Your task to perform on an android device: Open calendar and show me the second week of next month Image 0: 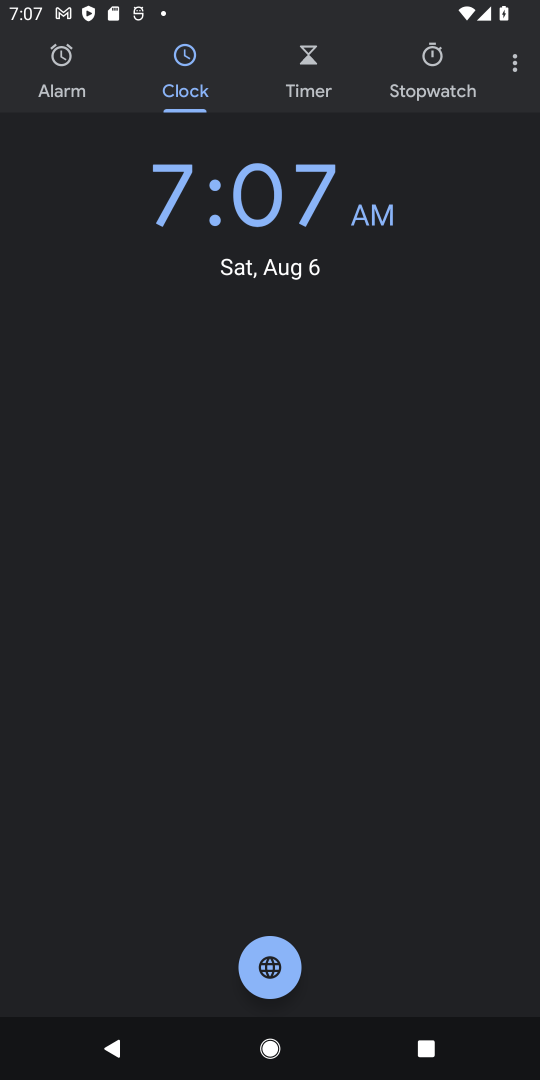
Step 0: press home button
Your task to perform on an android device: Open calendar and show me the second week of next month Image 1: 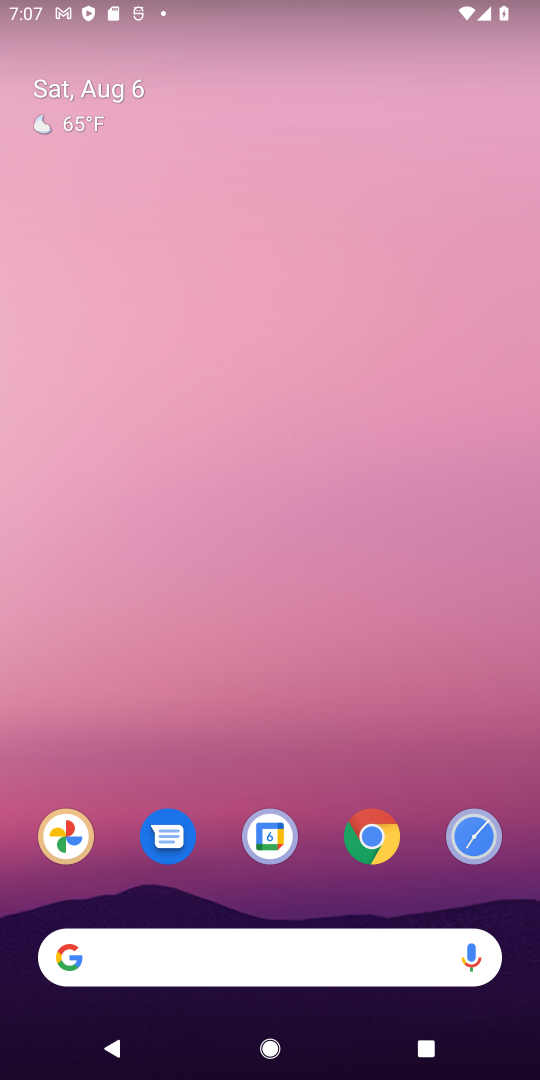
Step 1: drag from (475, 912) to (114, 139)
Your task to perform on an android device: Open calendar and show me the second week of next month Image 2: 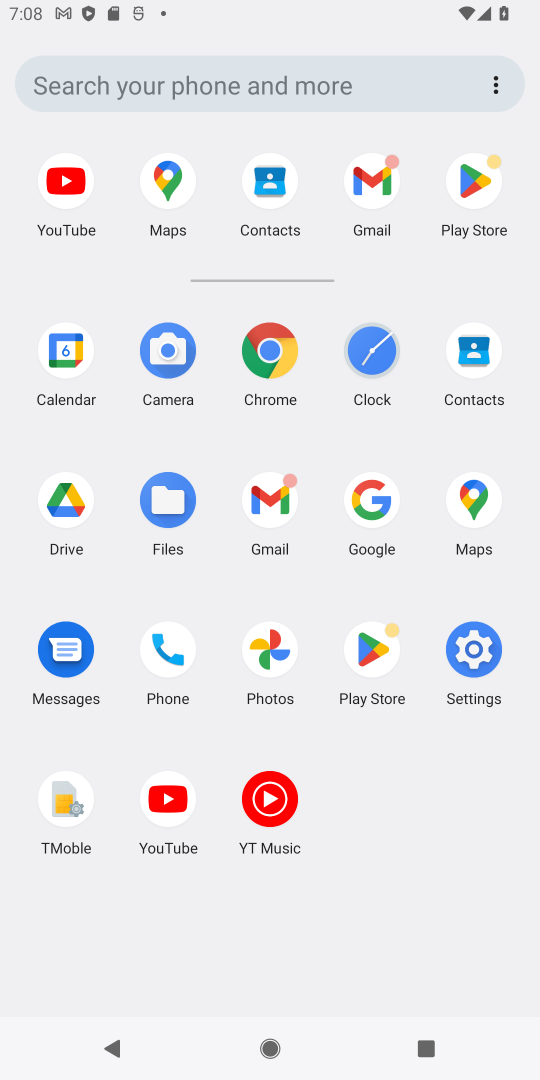
Step 2: click (77, 364)
Your task to perform on an android device: Open calendar and show me the second week of next month Image 3: 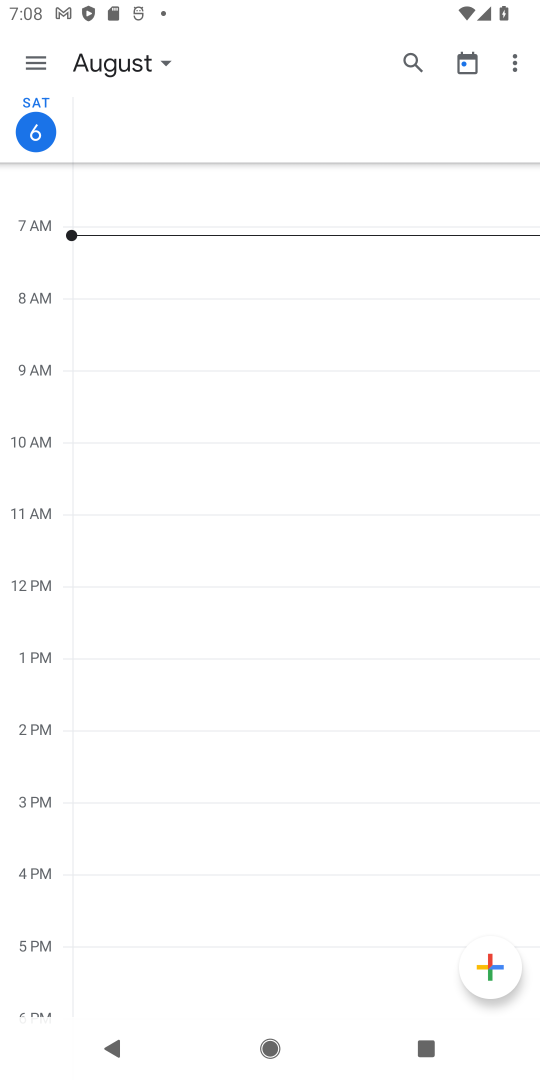
Step 3: click (123, 74)
Your task to perform on an android device: Open calendar and show me the second week of next month Image 4: 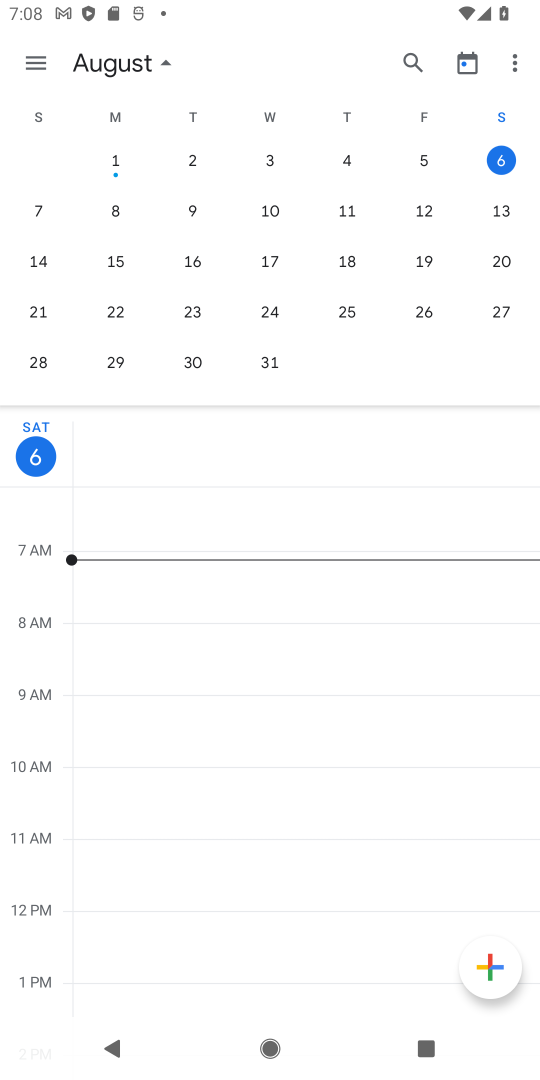
Step 4: drag from (531, 213) to (11, 194)
Your task to perform on an android device: Open calendar and show me the second week of next month Image 5: 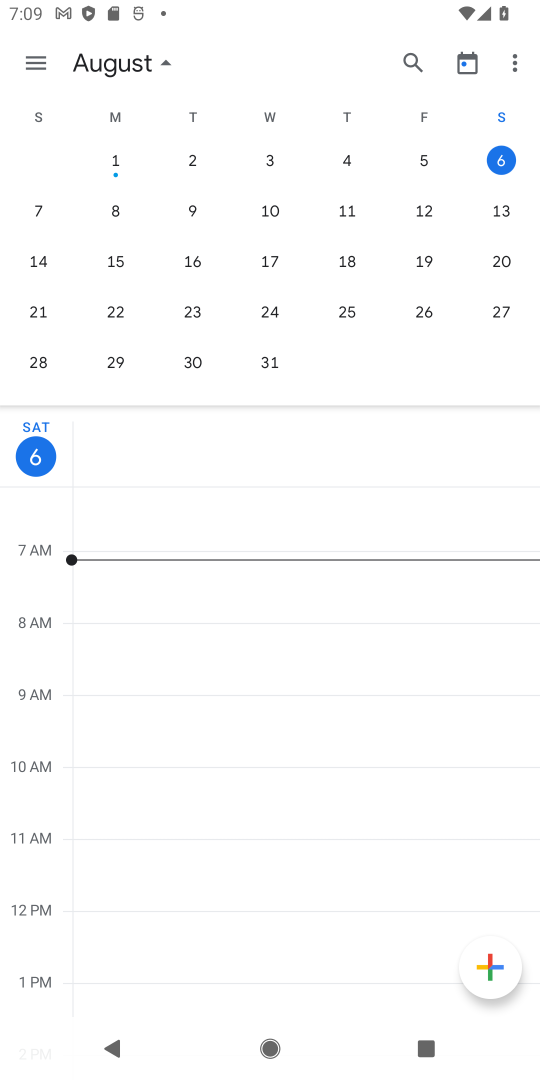
Step 5: drag from (501, 221) to (0, 253)
Your task to perform on an android device: Open calendar and show me the second week of next month Image 6: 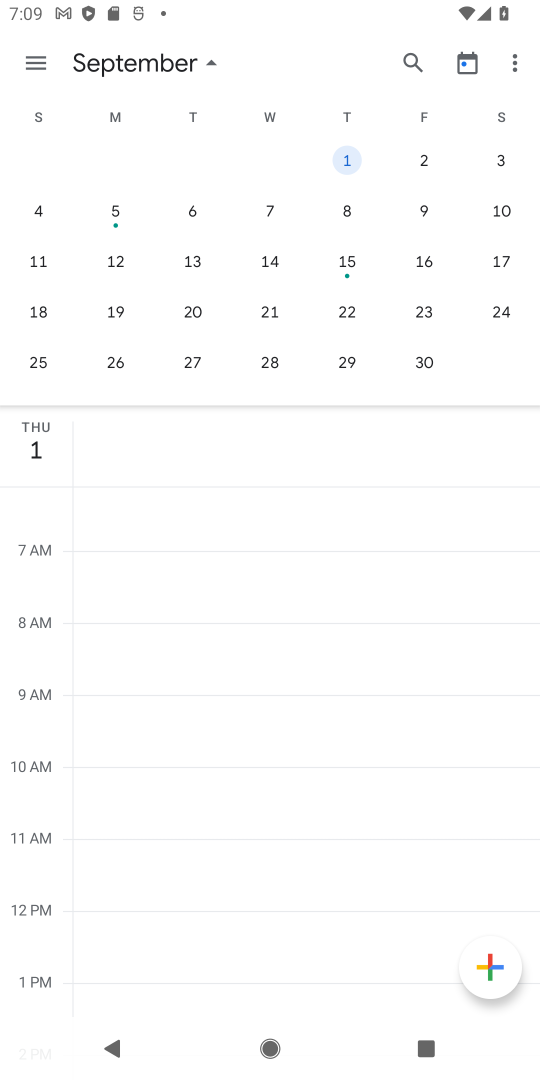
Step 6: click (30, 255)
Your task to perform on an android device: Open calendar and show me the second week of next month Image 7: 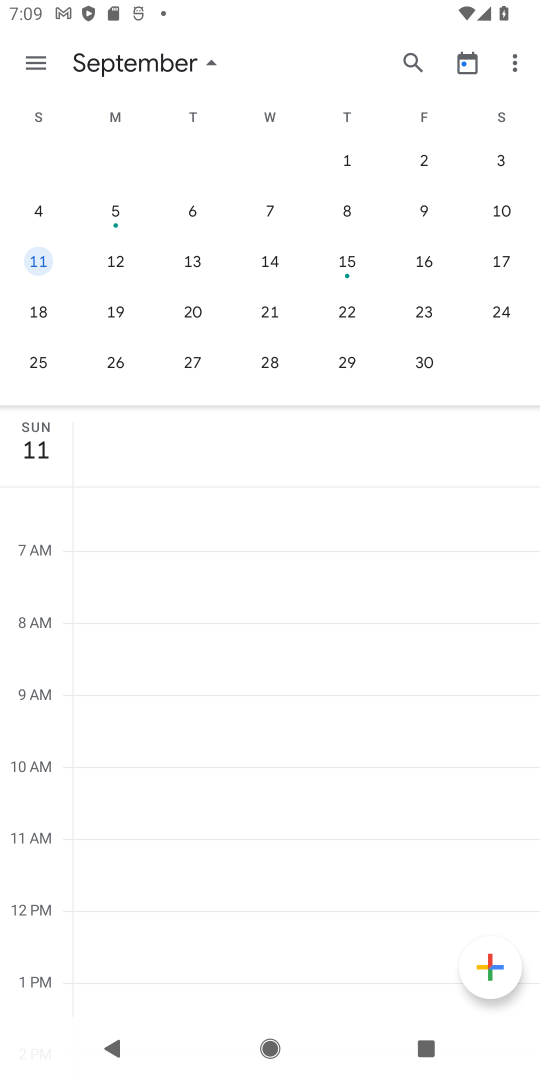
Step 7: task complete